Your task to perform on an android device: turn on notifications settings in the gmail app Image 0: 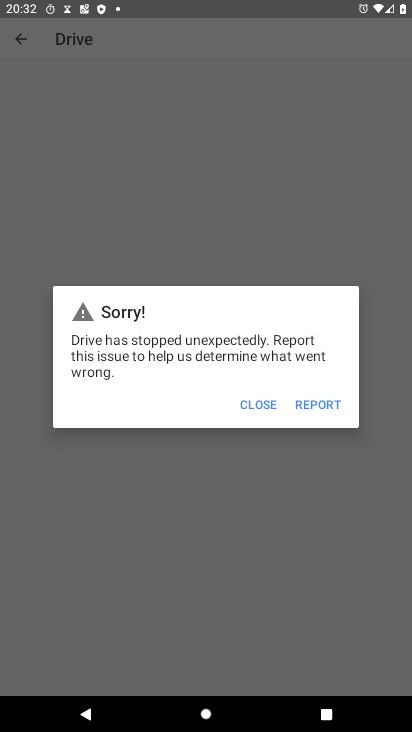
Step 0: press home button
Your task to perform on an android device: turn on notifications settings in the gmail app Image 1: 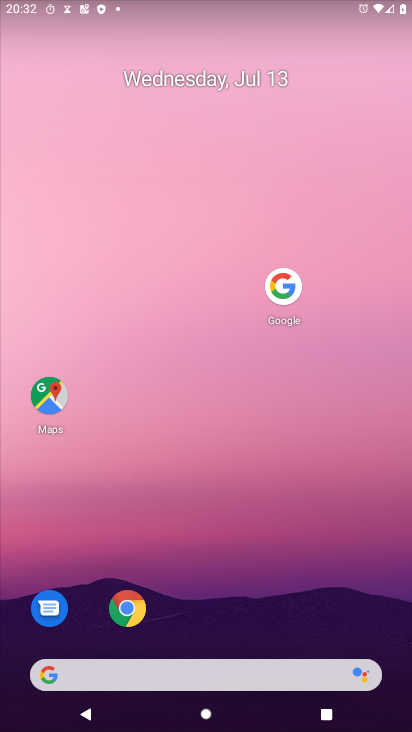
Step 1: drag from (172, 644) to (154, 47)
Your task to perform on an android device: turn on notifications settings in the gmail app Image 2: 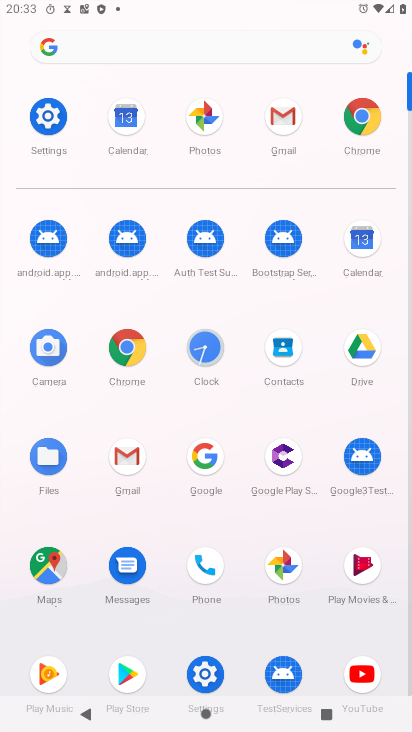
Step 2: click (42, 137)
Your task to perform on an android device: turn on notifications settings in the gmail app Image 3: 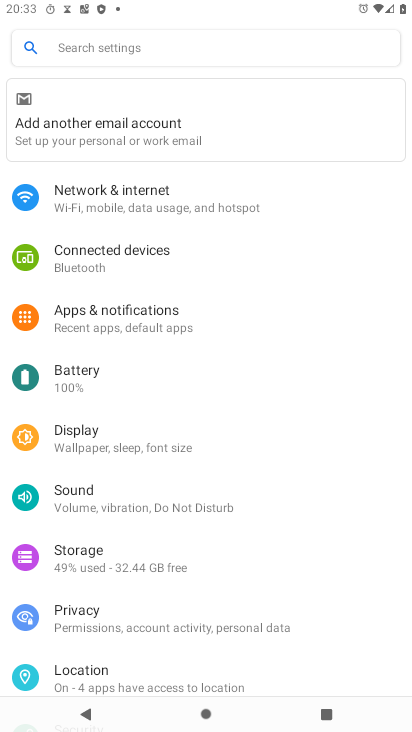
Step 3: press home button
Your task to perform on an android device: turn on notifications settings in the gmail app Image 4: 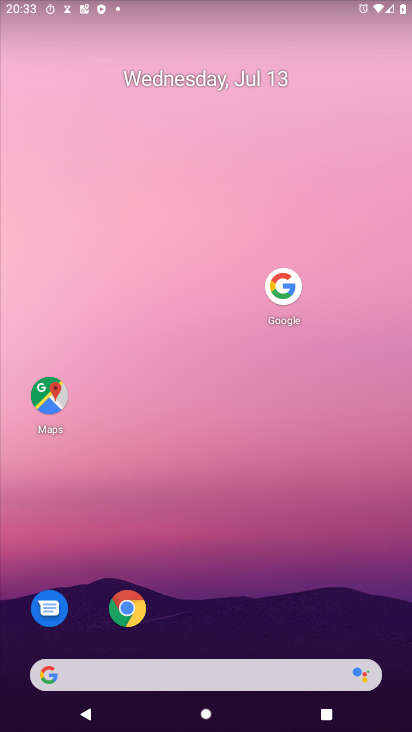
Step 4: drag from (204, 634) to (170, 130)
Your task to perform on an android device: turn on notifications settings in the gmail app Image 5: 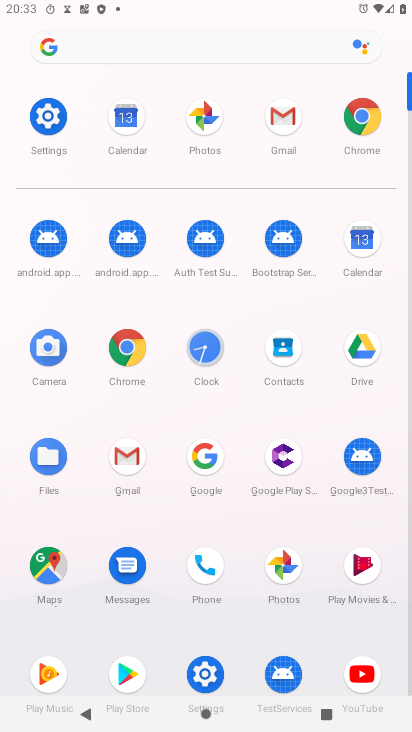
Step 5: click (267, 121)
Your task to perform on an android device: turn on notifications settings in the gmail app Image 6: 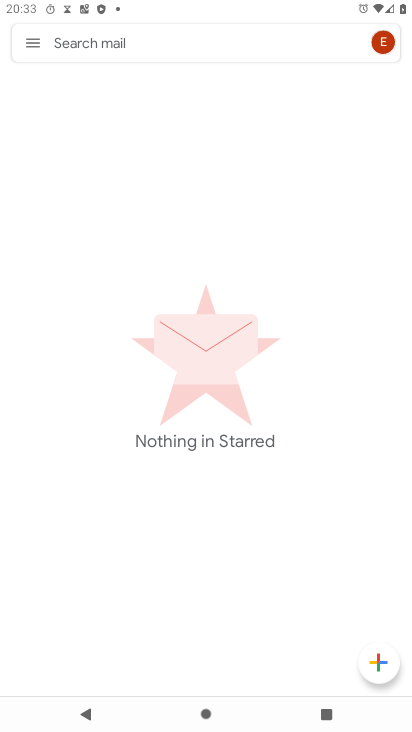
Step 6: drag from (31, 37) to (18, 371)
Your task to perform on an android device: turn on notifications settings in the gmail app Image 7: 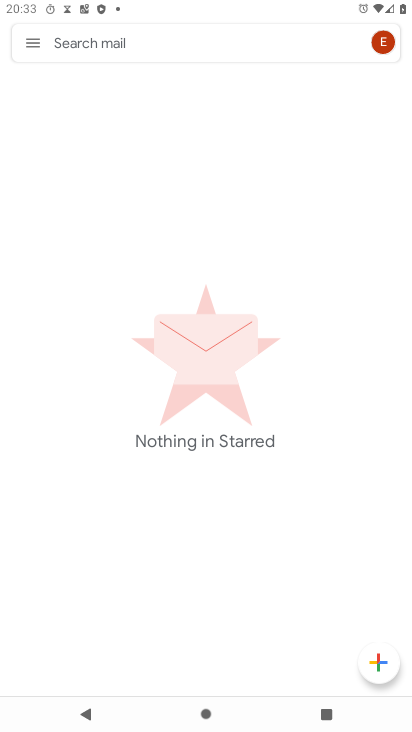
Step 7: click (29, 46)
Your task to perform on an android device: turn on notifications settings in the gmail app Image 8: 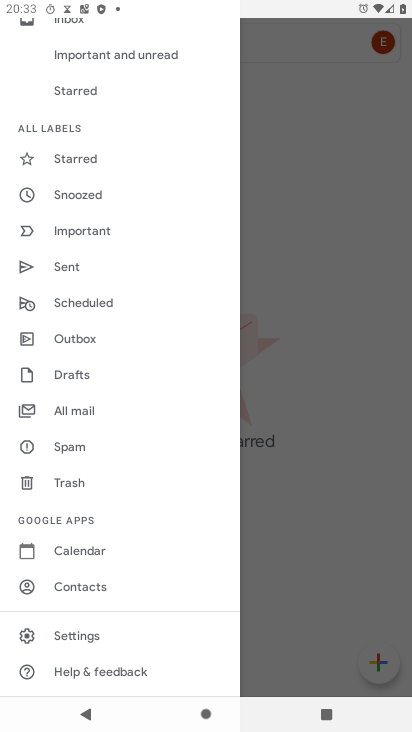
Step 8: click (79, 624)
Your task to perform on an android device: turn on notifications settings in the gmail app Image 9: 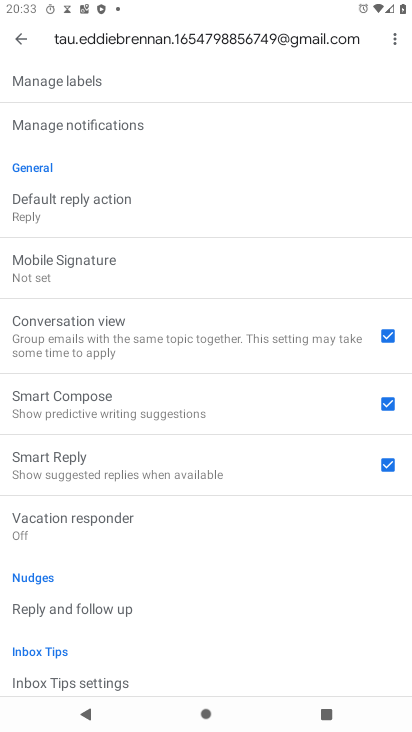
Step 9: click (30, 41)
Your task to perform on an android device: turn on notifications settings in the gmail app Image 10: 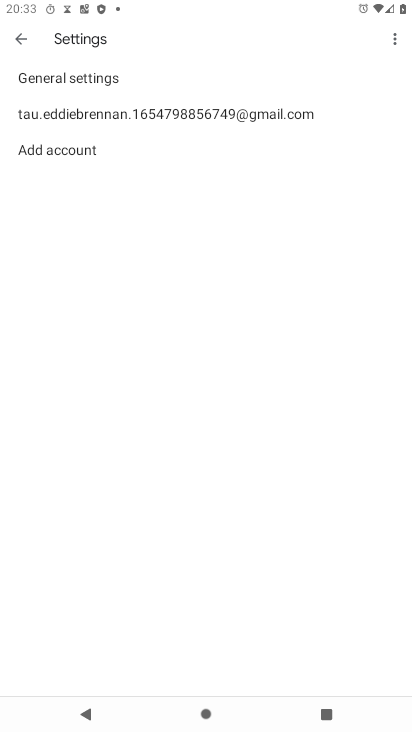
Step 10: click (65, 76)
Your task to perform on an android device: turn on notifications settings in the gmail app Image 11: 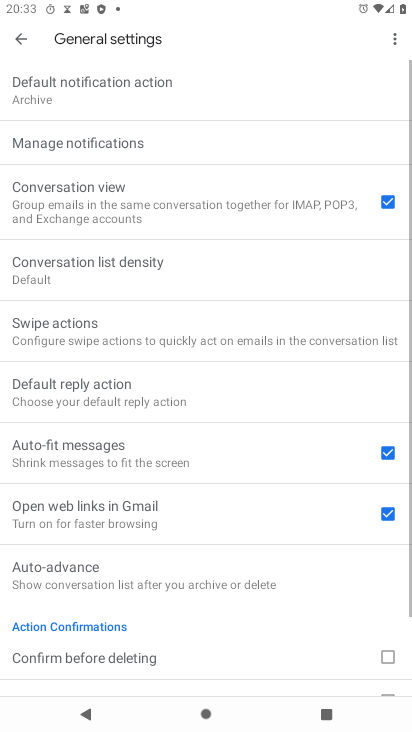
Step 11: click (67, 130)
Your task to perform on an android device: turn on notifications settings in the gmail app Image 12: 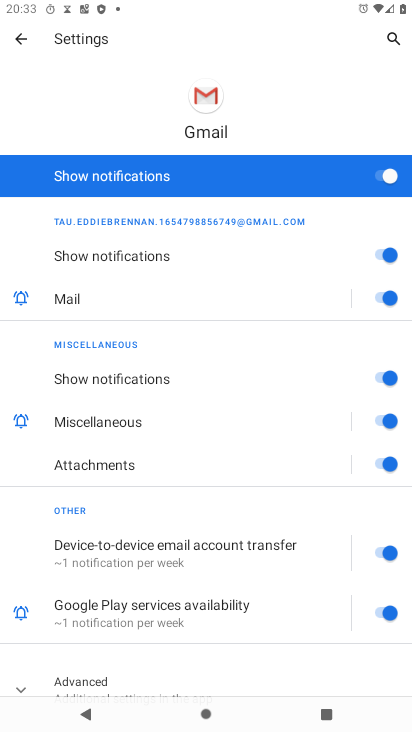
Step 12: task complete